Your task to perform on an android device: Go to battery settings Image 0: 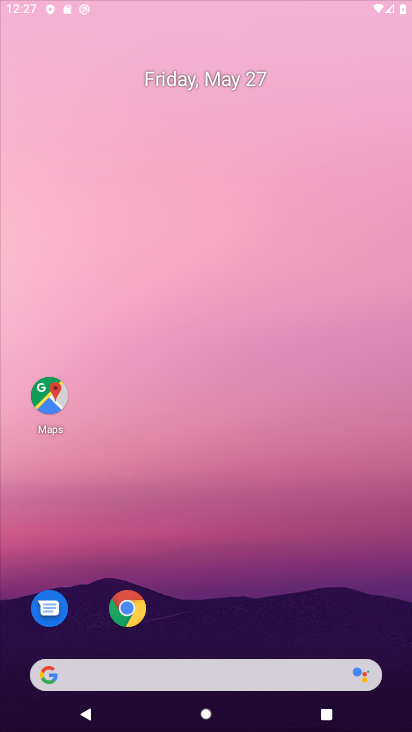
Step 0: click (279, 6)
Your task to perform on an android device: Go to battery settings Image 1: 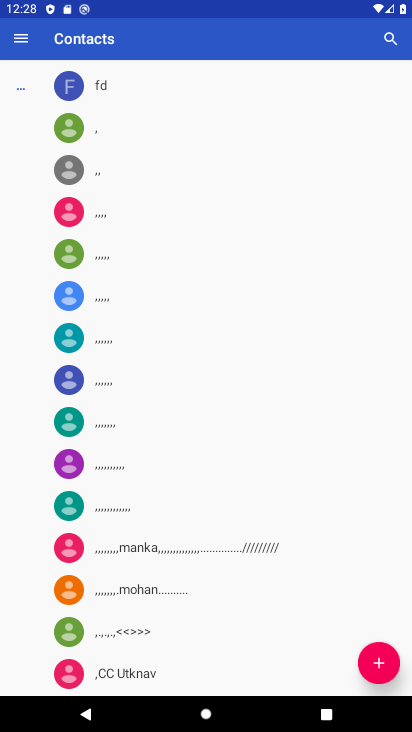
Step 1: press home button
Your task to perform on an android device: Go to battery settings Image 2: 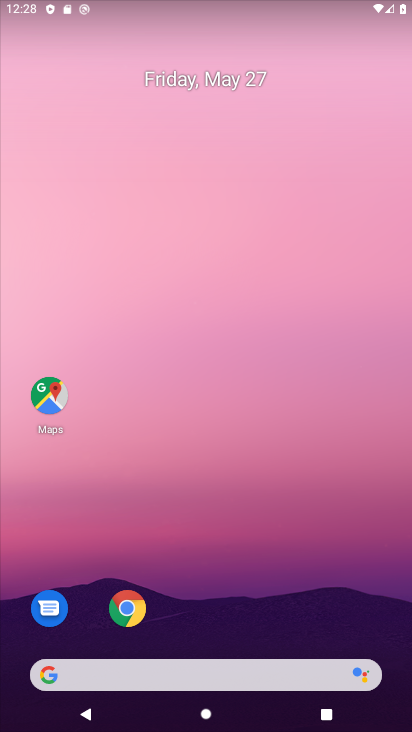
Step 2: drag from (198, 335) to (397, 222)
Your task to perform on an android device: Go to battery settings Image 3: 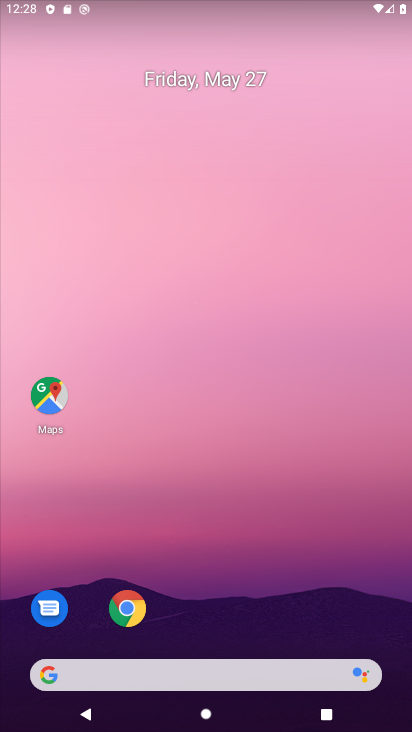
Step 3: drag from (185, 582) to (248, 20)
Your task to perform on an android device: Go to battery settings Image 4: 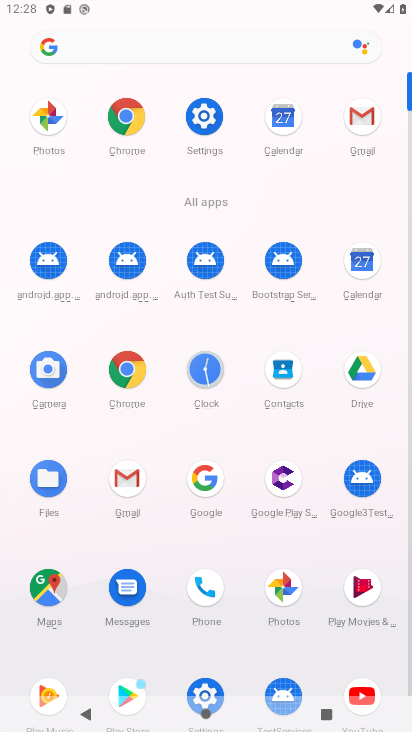
Step 4: click (203, 113)
Your task to perform on an android device: Go to battery settings Image 5: 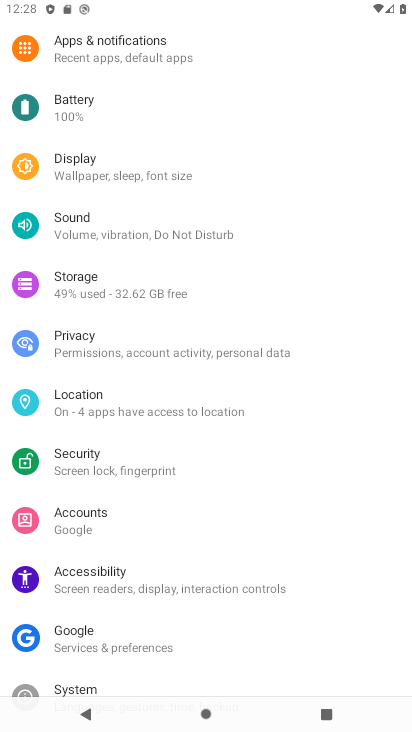
Step 5: click (142, 118)
Your task to perform on an android device: Go to battery settings Image 6: 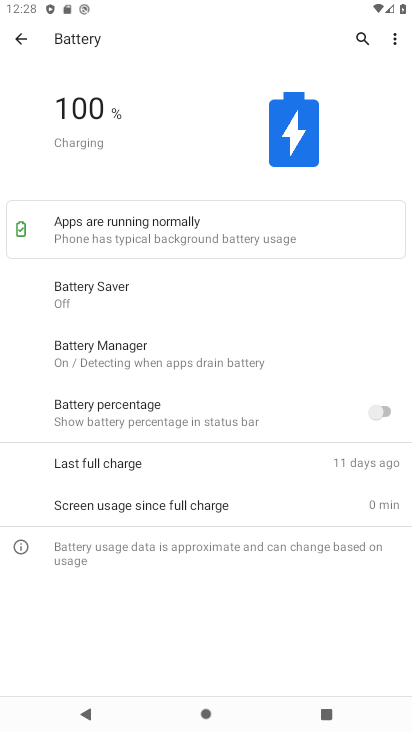
Step 6: task complete